Your task to perform on an android device: uninstall "Roku - Official Remote Control" Image 0: 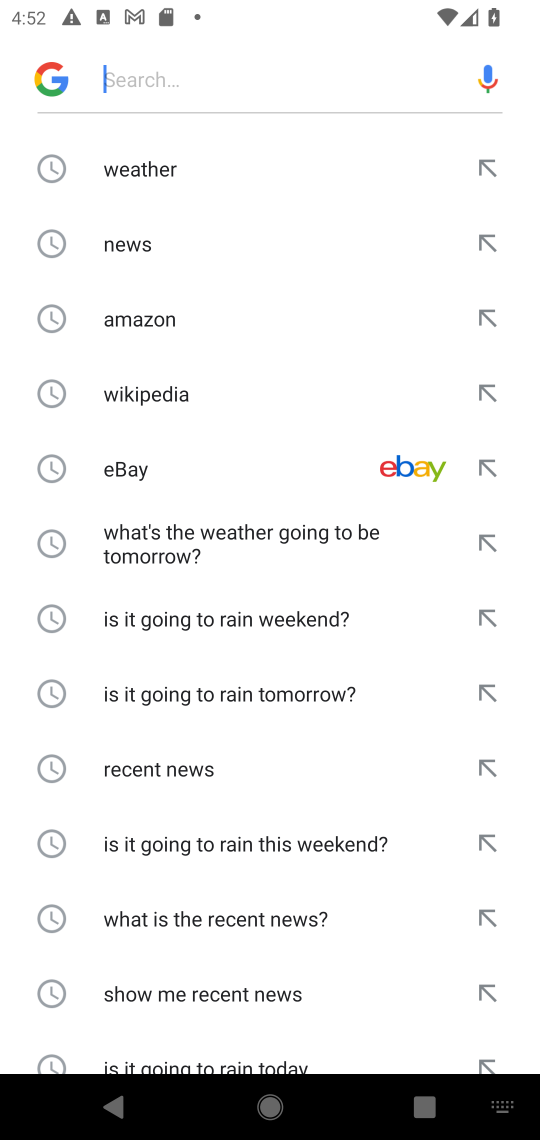
Step 0: press home button
Your task to perform on an android device: uninstall "Roku - Official Remote Control" Image 1: 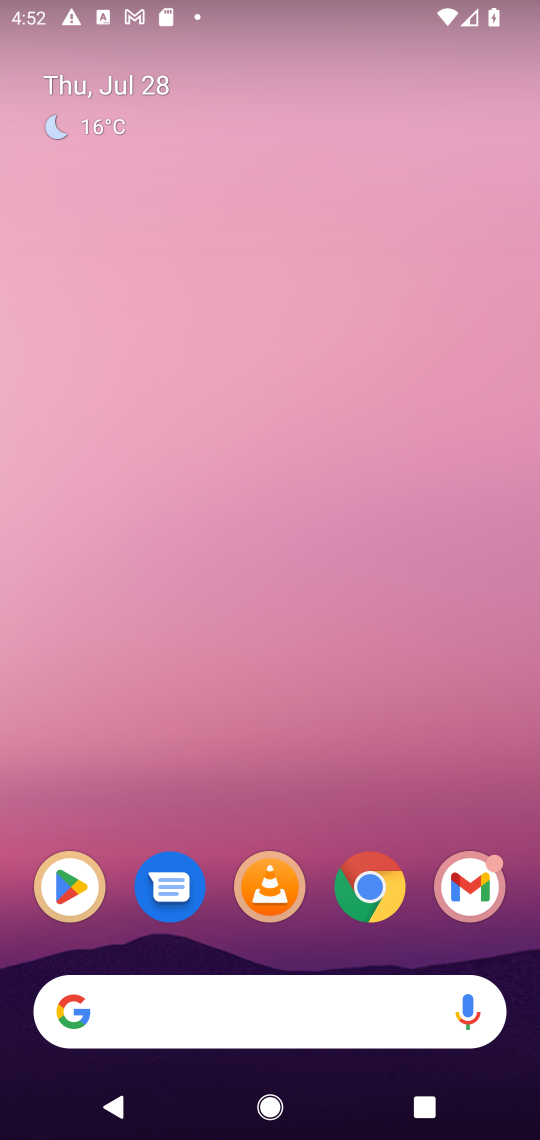
Step 1: click (72, 888)
Your task to perform on an android device: uninstall "Roku - Official Remote Control" Image 2: 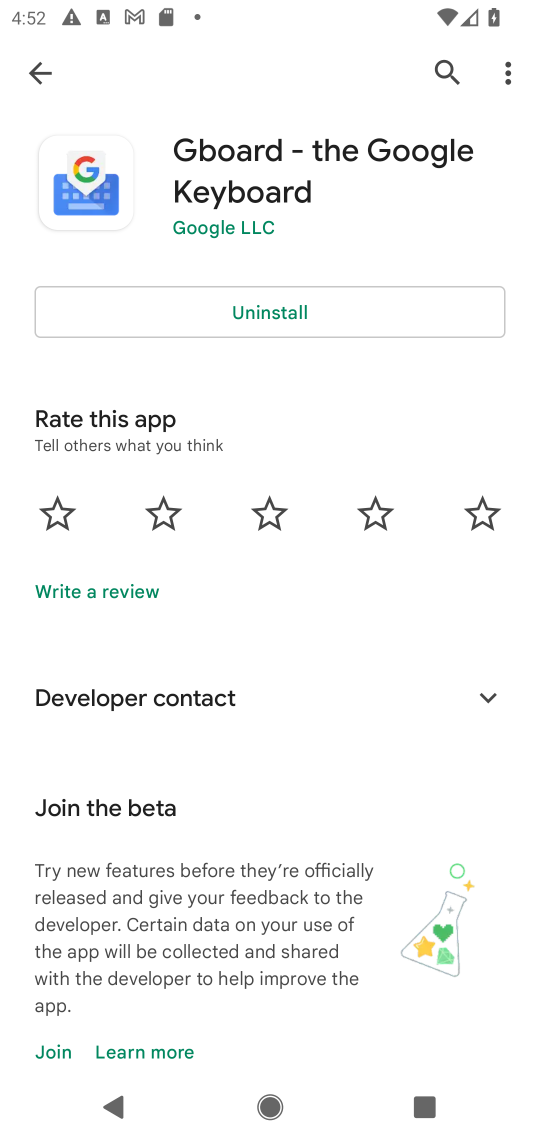
Step 2: click (32, 67)
Your task to perform on an android device: uninstall "Roku - Official Remote Control" Image 3: 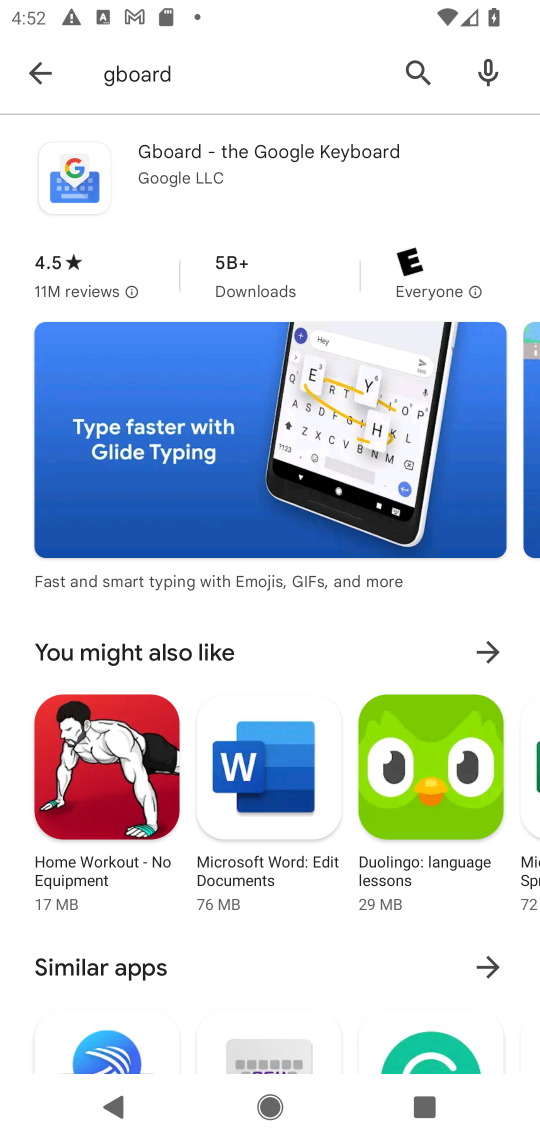
Step 3: click (166, 74)
Your task to perform on an android device: uninstall "Roku - Official Remote Control" Image 4: 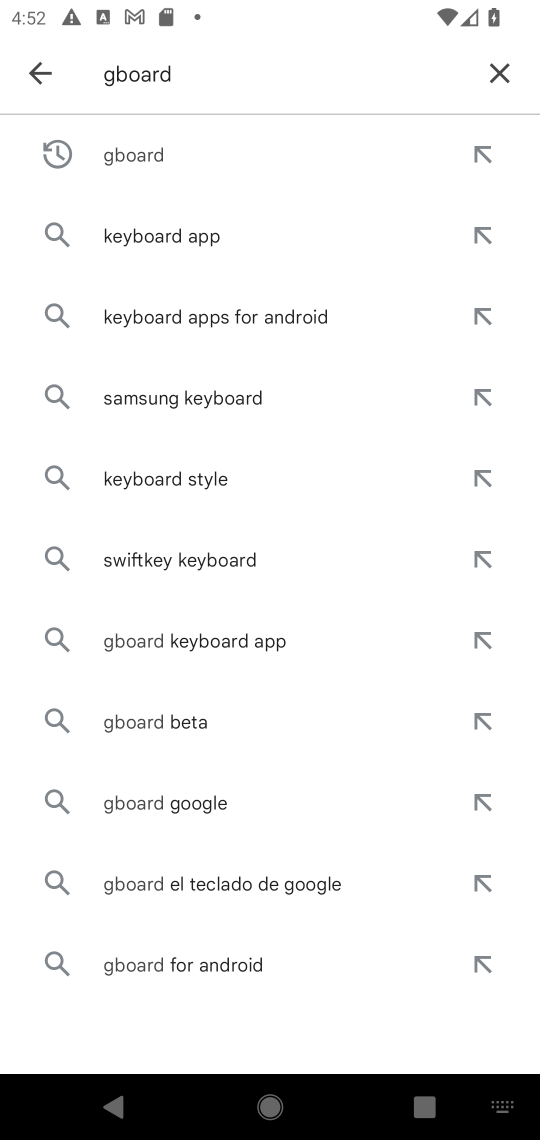
Step 4: click (495, 70)
Your task to perform on an android device: uninstall "Roku - Official Remote Control" Image 5: 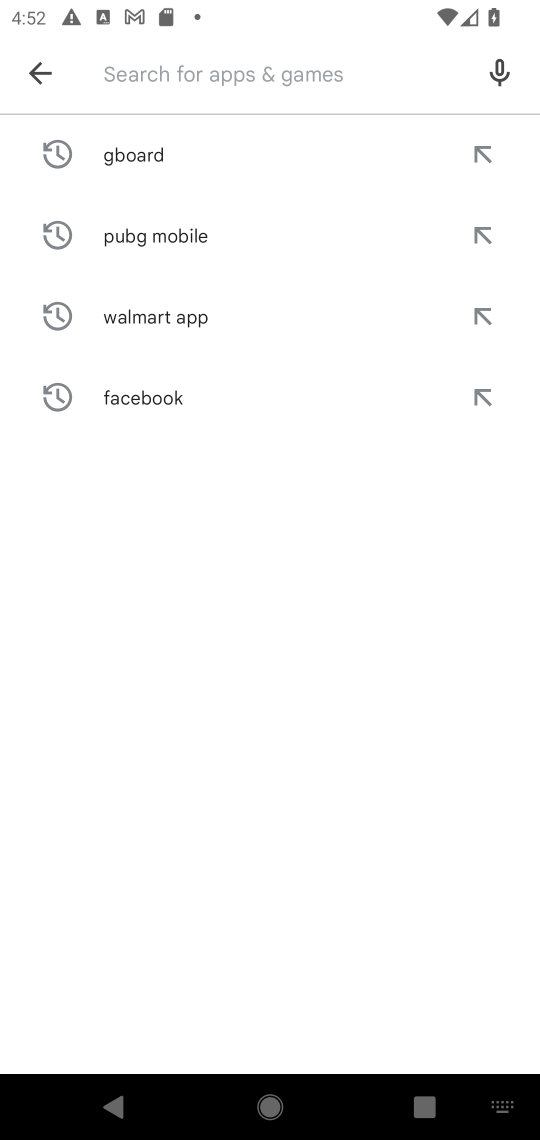
Step 5: type "Roku"
Your task to perform on an android device: uninstall "Roku - Official Remote Control" Image 6: 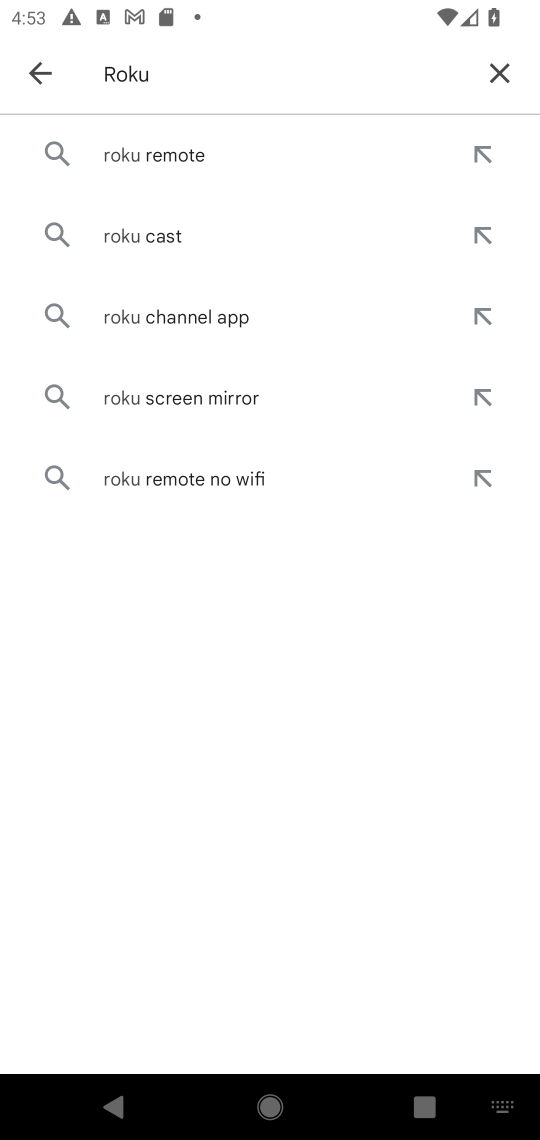
Step 6: click (141, 172)
Your task to perform on an android device: uninstall "Roku - Official Remote Control" Image 7: 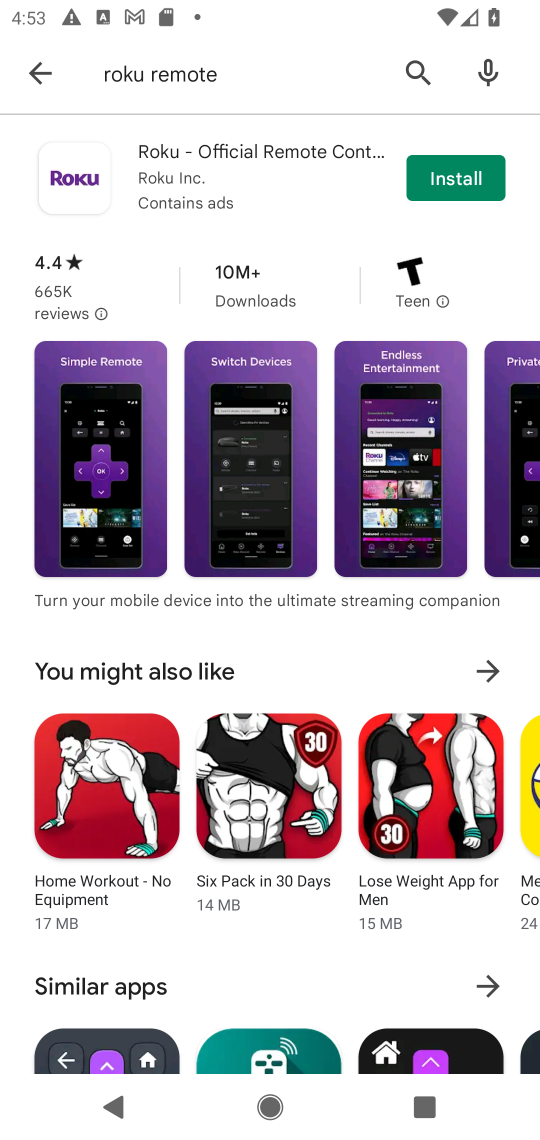
Step 7: task complete